Your task to perform on an android device: Open eBay Image 0: 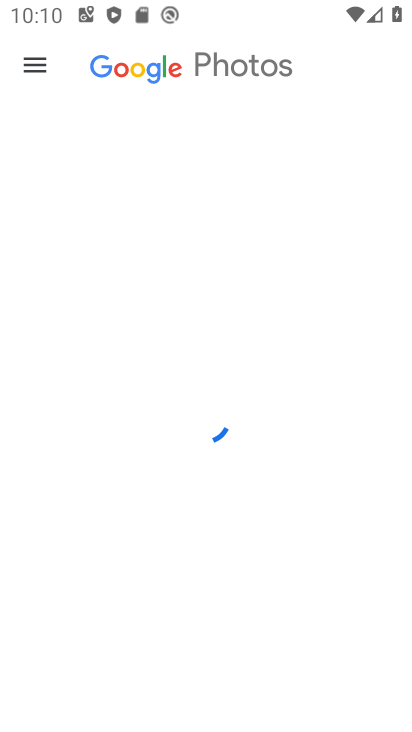
Step 0: press home button
Your task to perform on an android device: Open eBay Image 1: 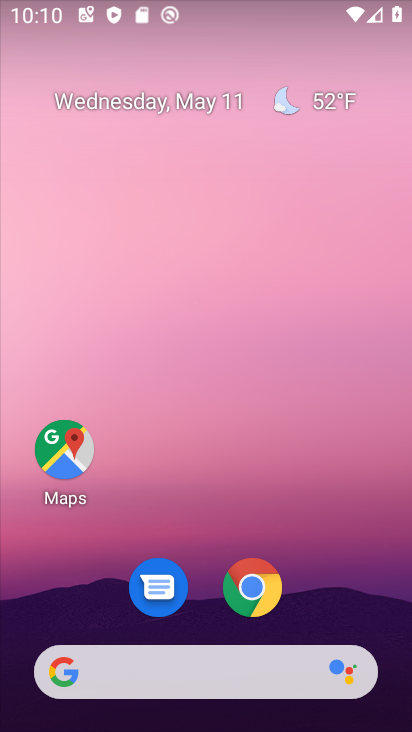
Step 1: drag from (260, 676) to (309, 82)
Your task to perform on an android device: Open eBay Image 2: 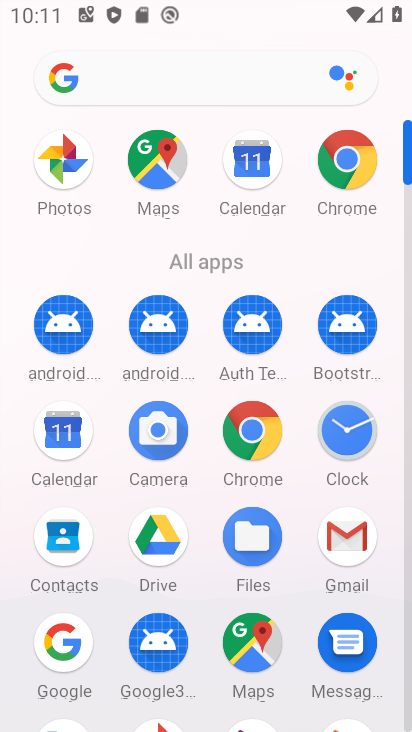
Step 2: click (357, 170)
Your task to perform on an android device: Open eBay Image 3: 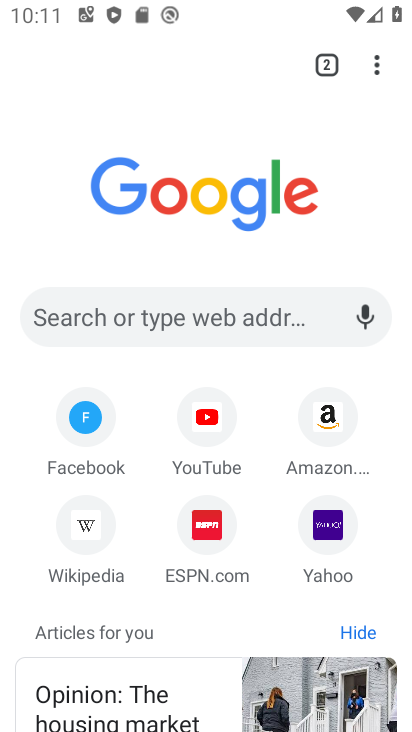
Step 3: click (177, 306)
Your task to perform on an android device: Open eBay Image 4: 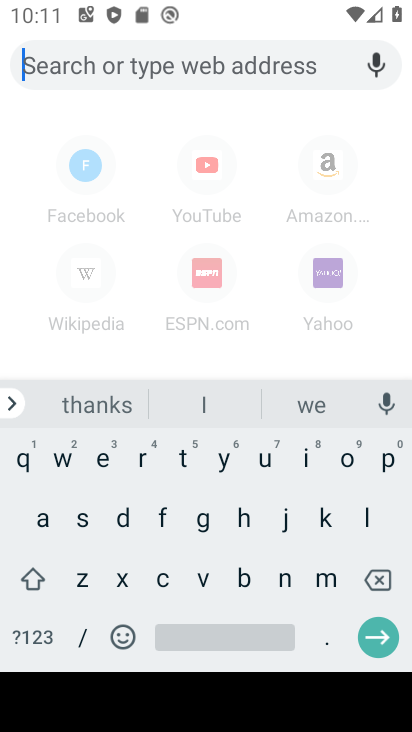
Step 4: click (107, 469)
Your task to perform on an android device: Open eBay Image 5: 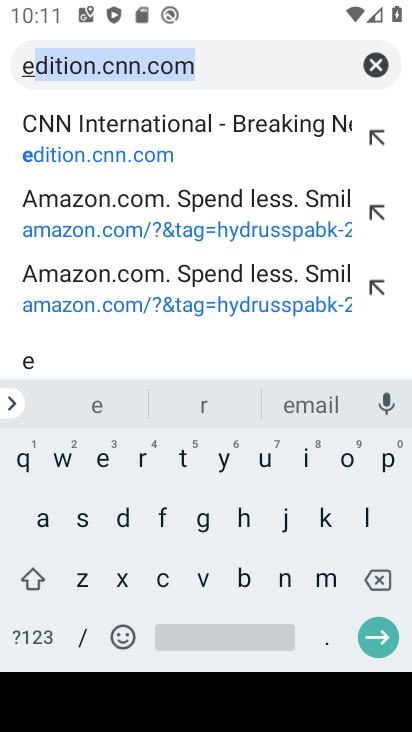
Step 5: click (241, 585)
Your task to perform on an android device: Open eBay Image 6: 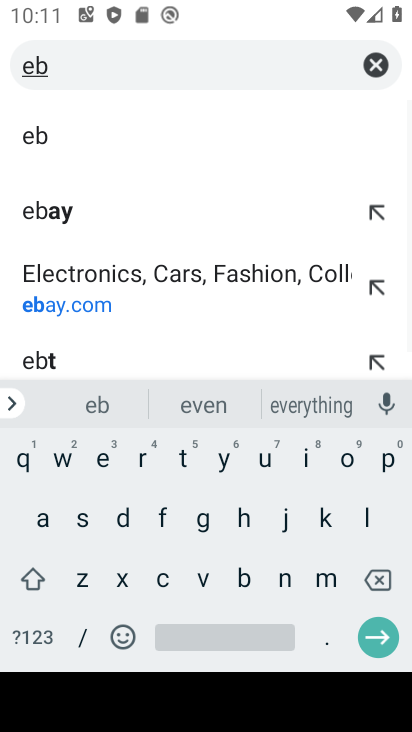
Step 6: click (93, 222)
Your task to perform on an android device: Open eBay Image 7: 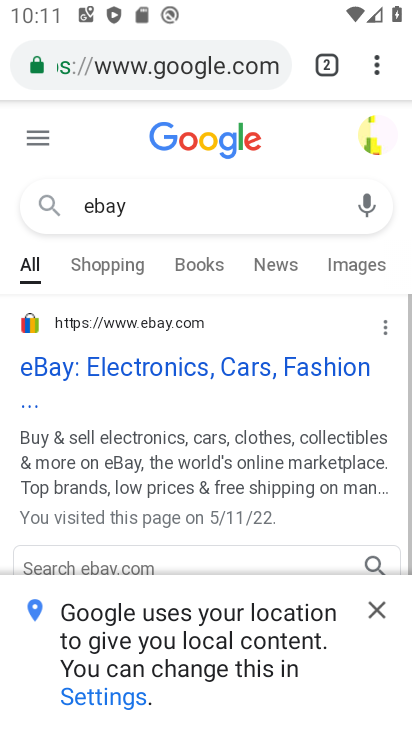
Step 7: click (376, 611)
Your task to perform on an android device: Open eBay Image 8: 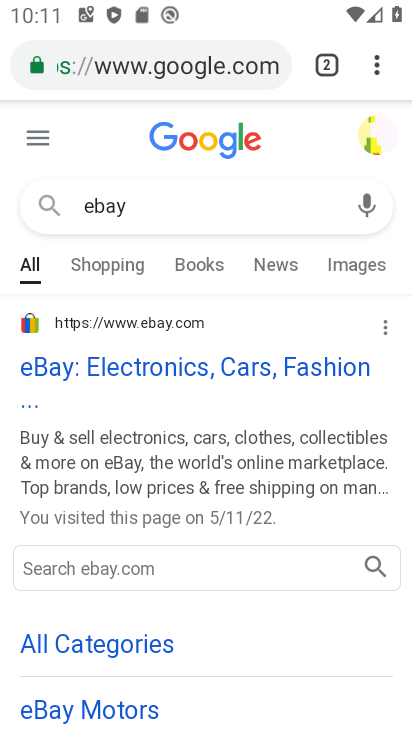
Step 8: click (109, 372)
Your task to perform on an android device: Open eBay Image 9: 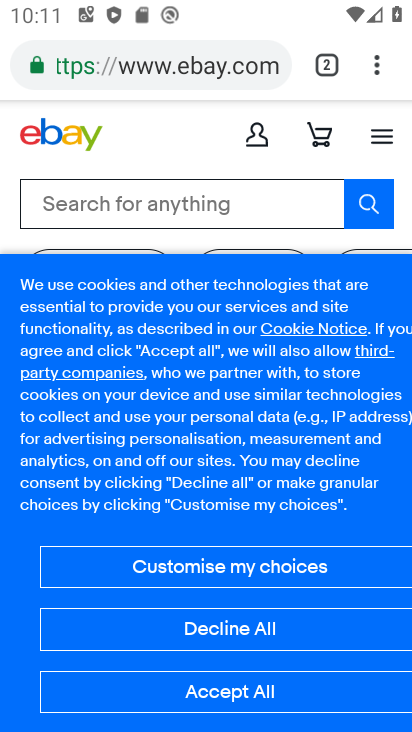
Step 9: click (264, 624)
Your task to perform on an android device: Open eBay Image 10: 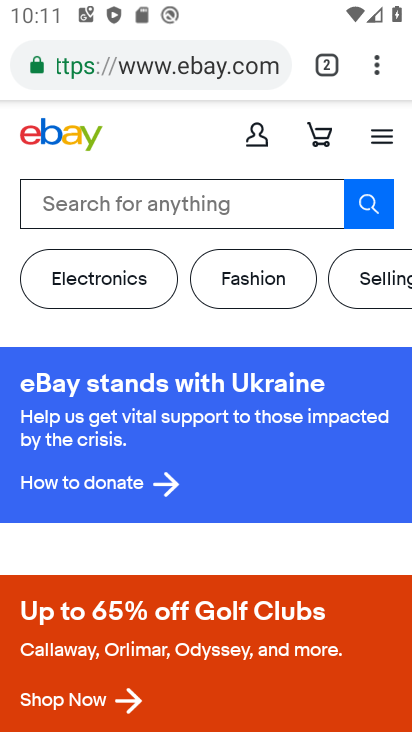
Step 10: task complete